Your task to perform on an android device: What's the weather today? Image 0: 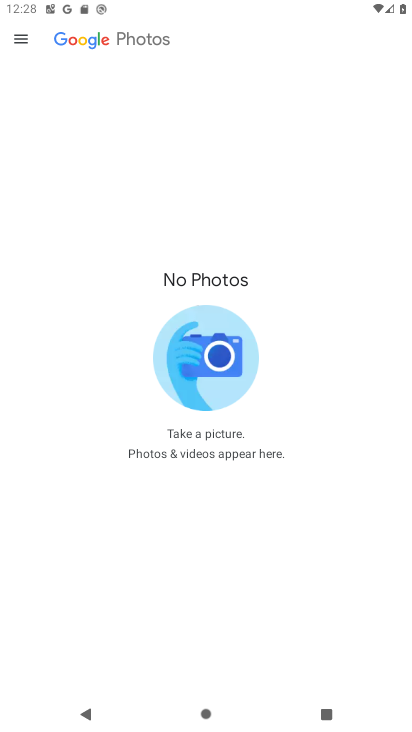
Step 0: press home button
Your task to perform on an android device: What's the weather today? Image 1: 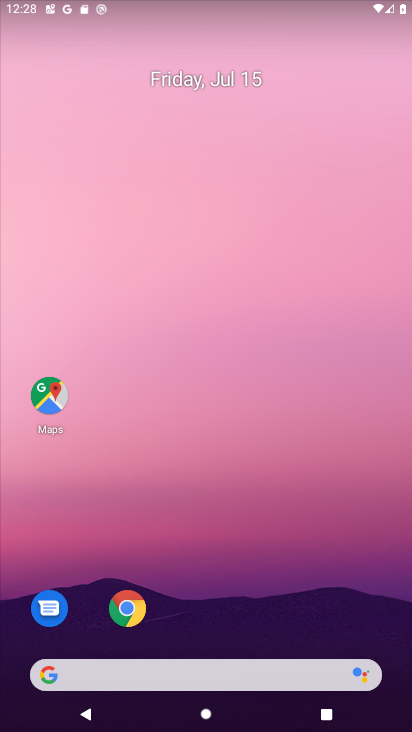
Step 1: click (164, 670)
Your task to perform on an android device: What's the weather today? Image 2: 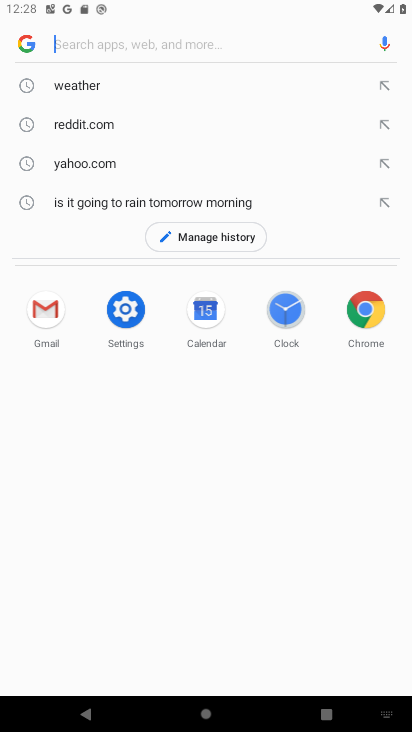
Step 2: type "weather"
Your task to perform on an android device: What's the weather today? Image 3: 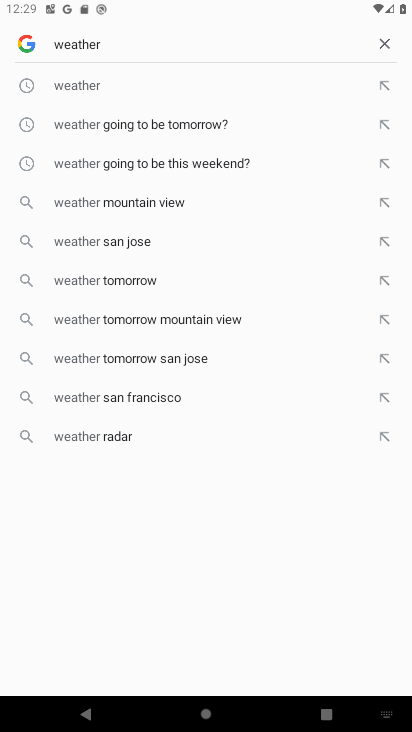
Step 3: click (64, 79)
Your task to perform on an android device: What's the weather today? Image 4: 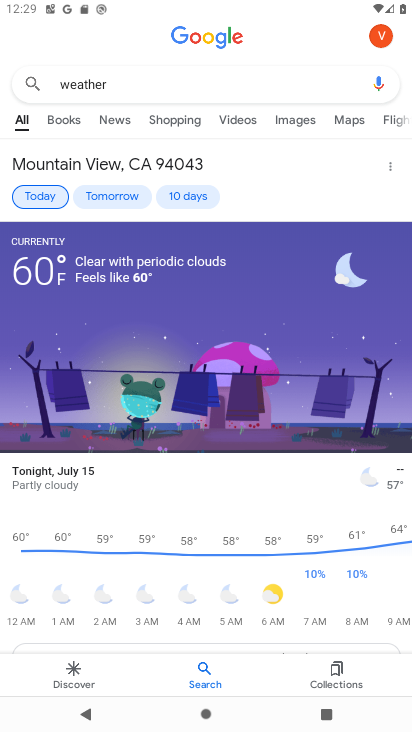
Step 4: task complete